Your task to perform on an android device: Open my contact list Image 0: 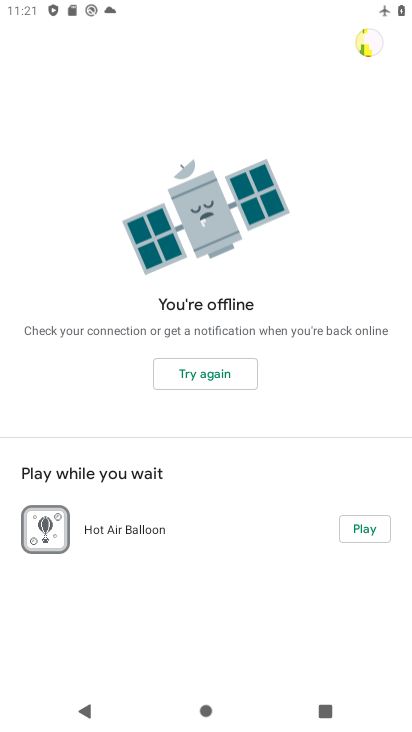
Step 0: press home button
Your task to perform on an android device: Open my contact list Image 1: 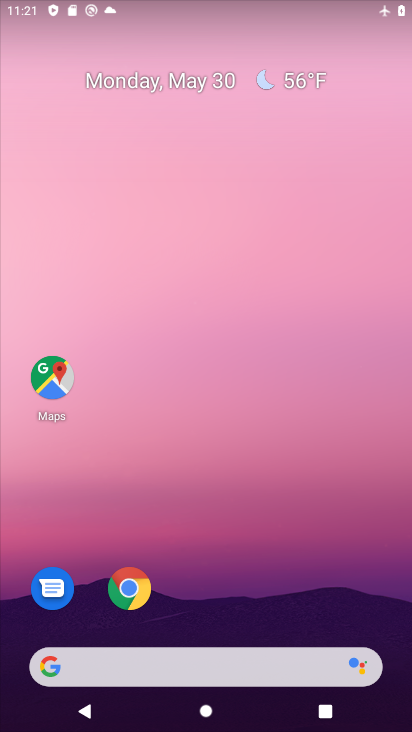
Step 1: drag from (203, 624) to (244, 47)
Your task to perform on an android device: Open my contact list Image 2: 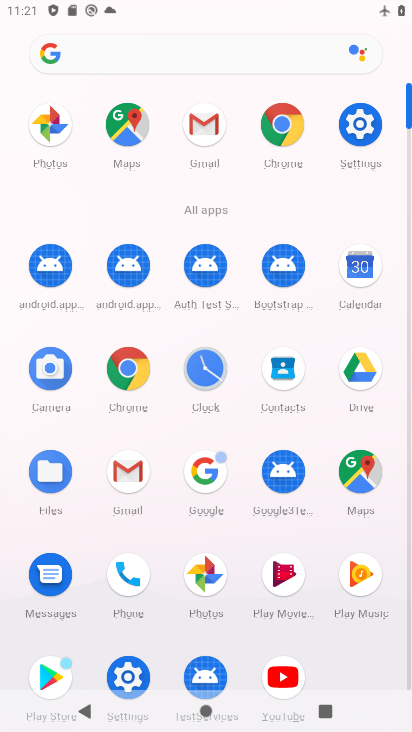
Step 2: drag from (208, 595) to (282, 265)
Your task to perform on an android device: Open my contact list Image 3: 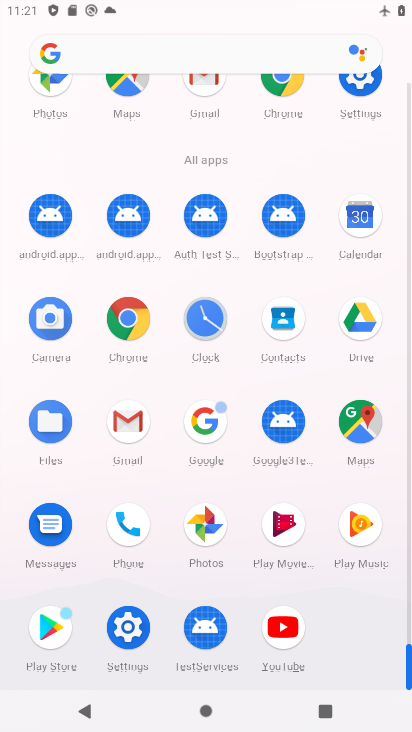
Step 3: click (284, 339)
Your task to perform on an android device: Open my contact list Image 4: 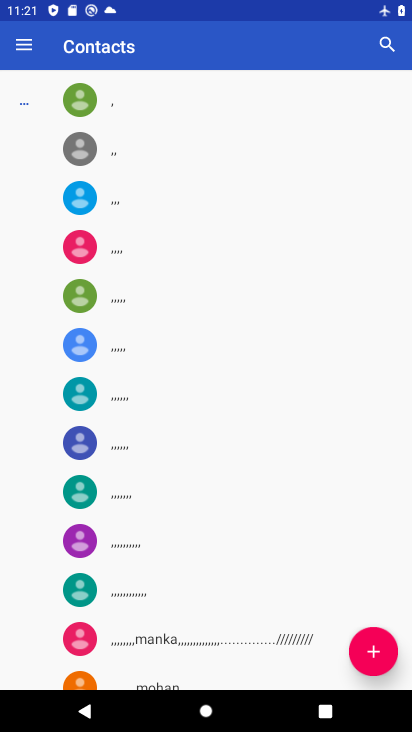
Step 4: task complete